Your task to perform on an android device: turn on data saver in the chrome app Image 0: 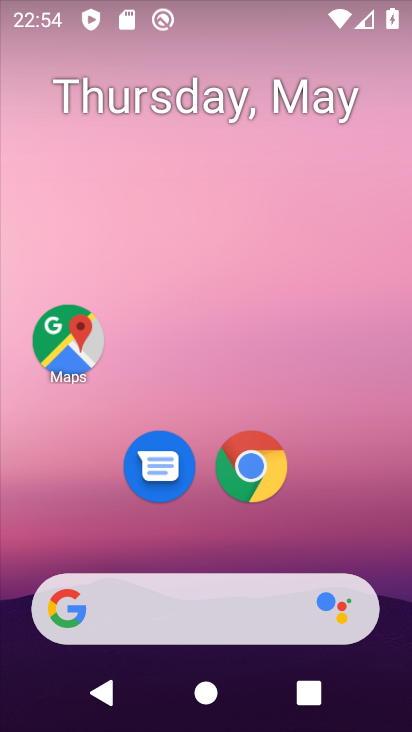
Step 0: click (247, 455)
Your task to perform on an android device: turn on data saver in the chrome app Image 1: 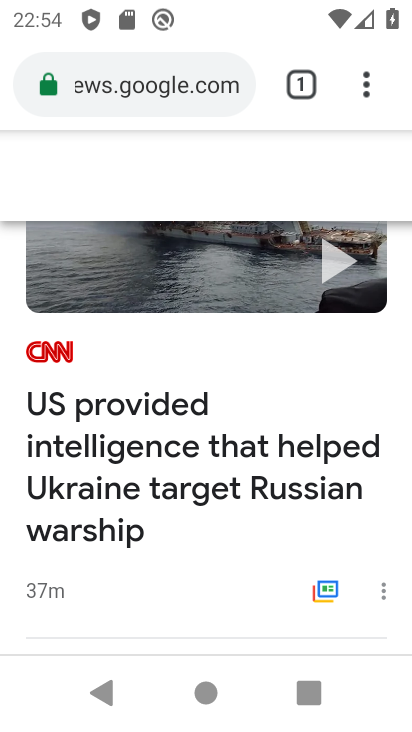
Step 1: drag from (377, 83) to (160, 515)
Your task to perform on an android device: turn on data saver in the chrome app Image 2: 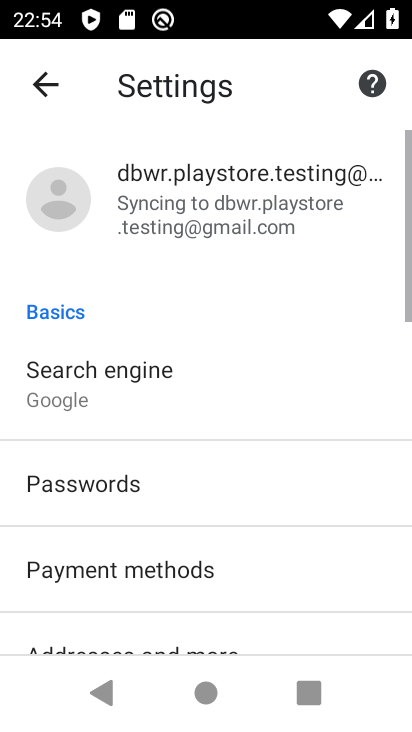
Step 2: drag from (162, 488) to (144, 46)
Your task to perform on an android device: turn on data saver in the chrome app Image 3: 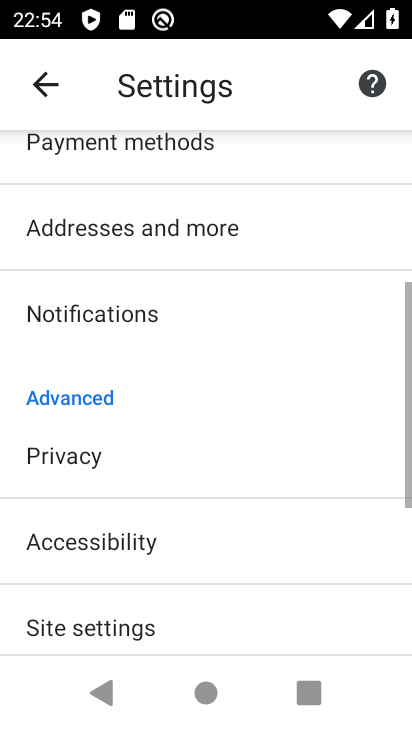
Step 3: drag from (189, 410) to (288, 15)
Your task to perform on an android device: turn on data saver in the chrome app Image 4: 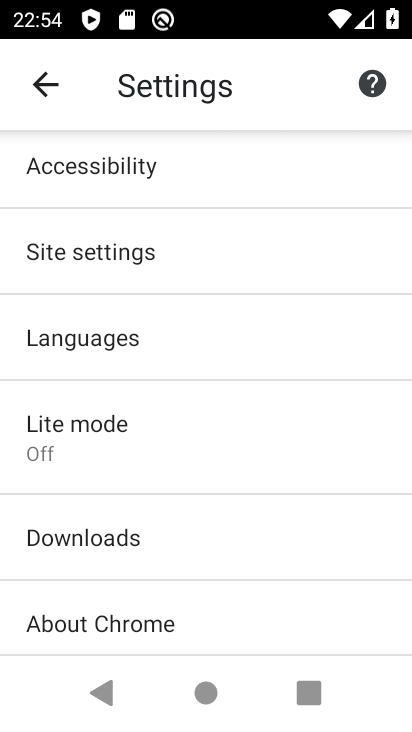
Step 4: click (145, 414)
Your task to perform on an android device: turn on data saver in the chrome app Image 5: 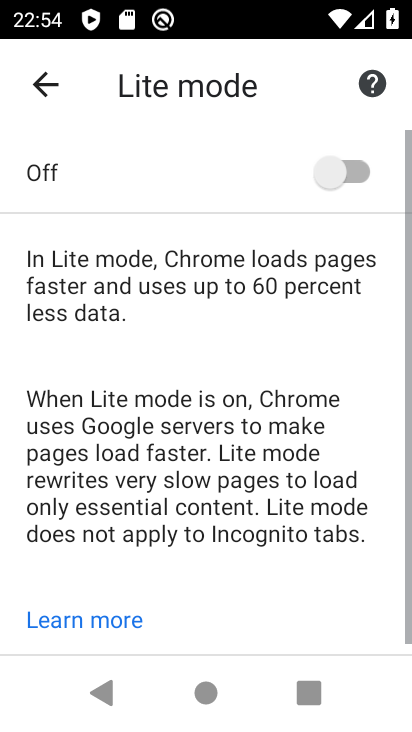
Step 5: click (348, 164)
Your task to perform on an android device: turn on data saver in the chrome app Image 6: 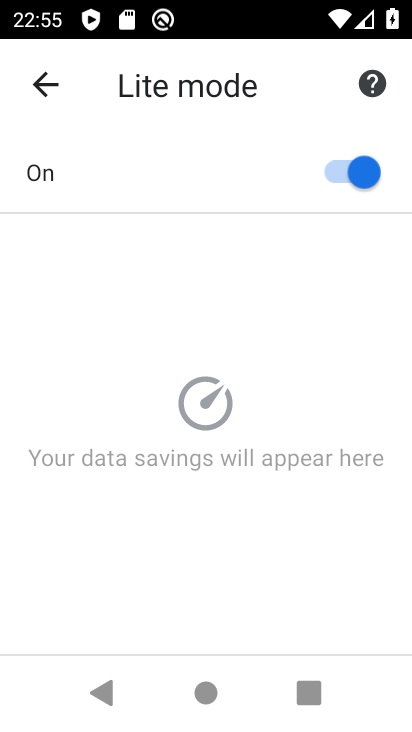
Step 6: task complete